Your task to perform on an android device: check battery use Image 0: 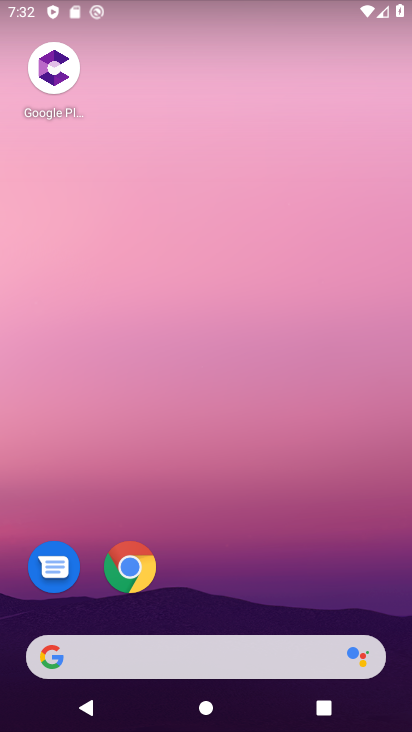
Step 0: drag from (390, 633) to (367, 102)
Your task to perform on an android device: check battery use Image 1: 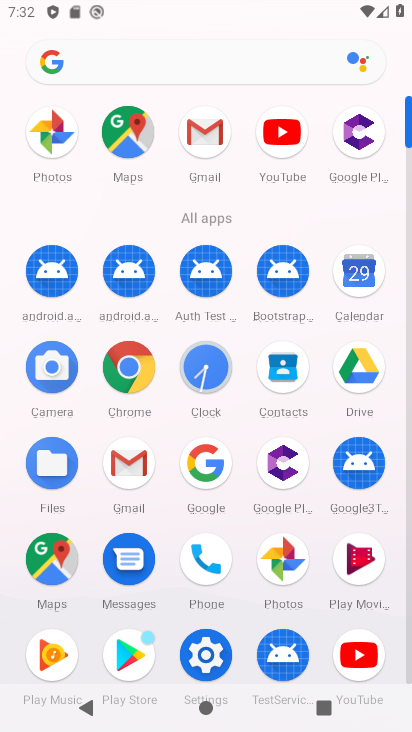
Step 1: click (198, 653)
Your task to perform on an android device: check battery use Image 2: 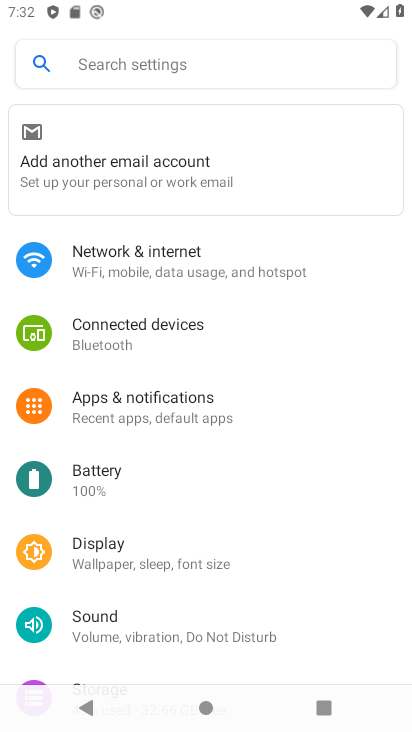
Step 2: click (90, 473)
Your task to perform on an android device: check battery use Image 3: 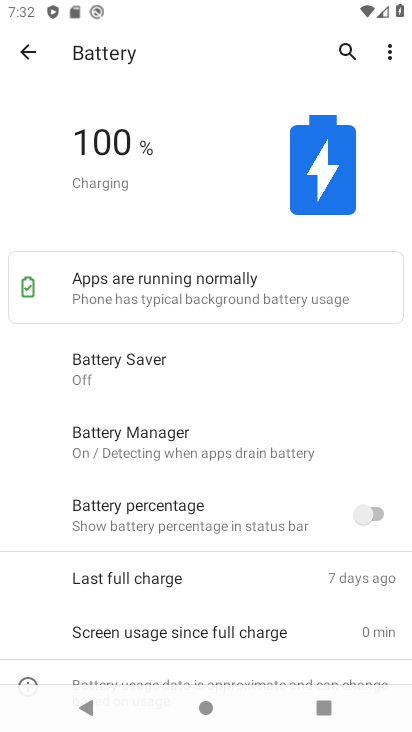
Step 3: click (394, 53)
Your task to perform on an android device: check battery use Image 4: 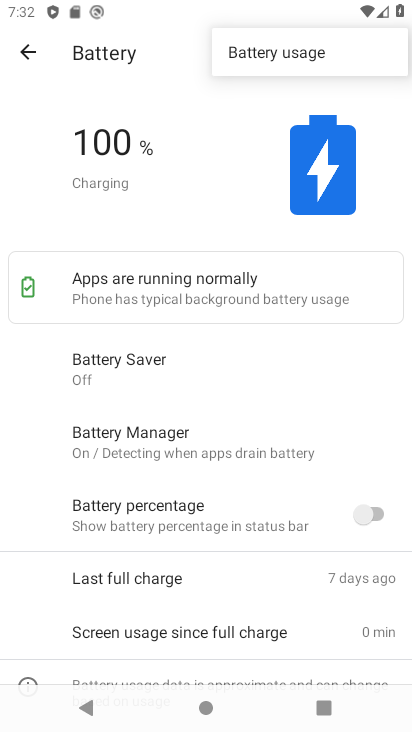
Step 4: click (312, 52)
Your task to perform on an android device: check battery use Image 5: 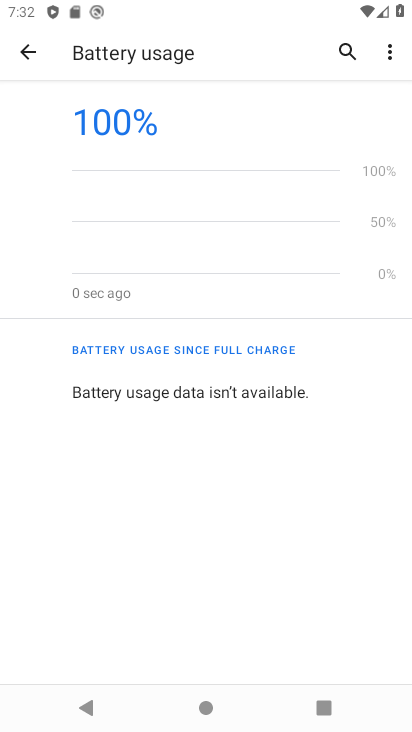
Step 5: task complete